Your task to perform on an android device: Go to Yahoo.com Image 0: 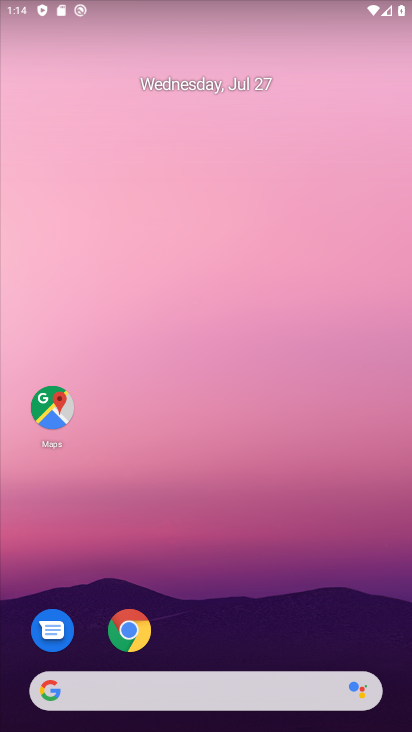
Step 0: click (132, 645)
Your task to perform on an android device: Go to Yahoo.com Image 1: 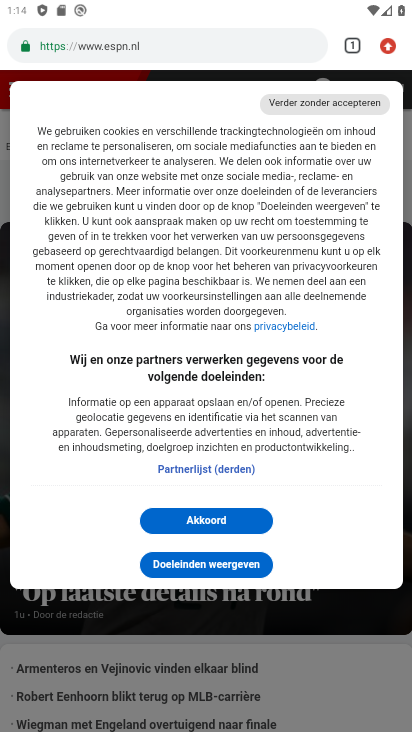
Step 1: click (356, 53)
Your task to perform on an android device: Go to Yahoo.com Image 2: 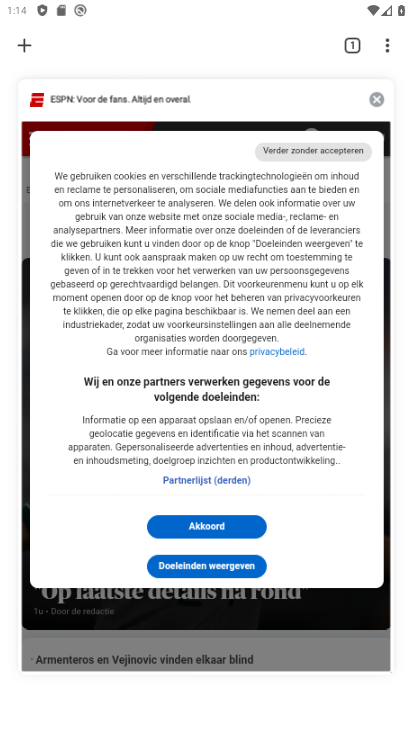
Step 2: click (23, 45)
Your task to perform on an android device: Go to Yahoo.com Image 3: 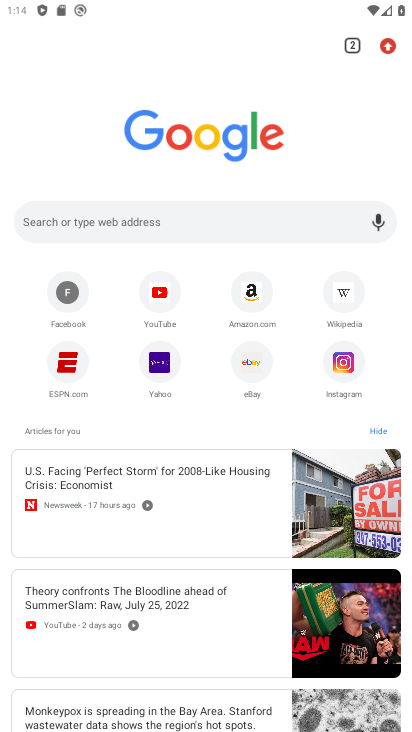
Step 3: click (161, 359)
Your task to perform on an android device: Go to Yahoo.com Image 4: 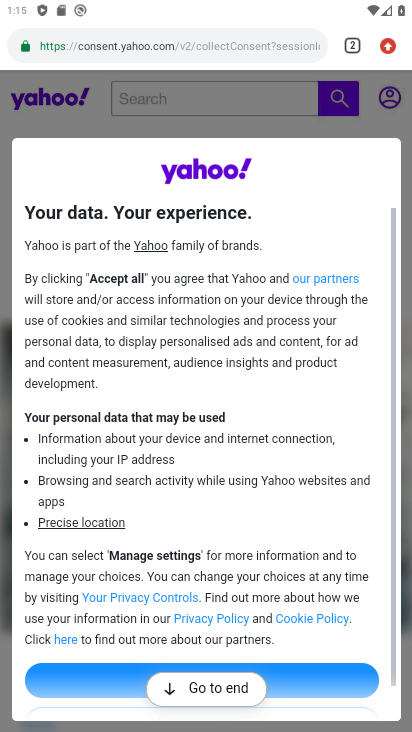
Step 4: task complete